Your task to perform on an android device: see tabs open on other devices in the chrome app Image 0: 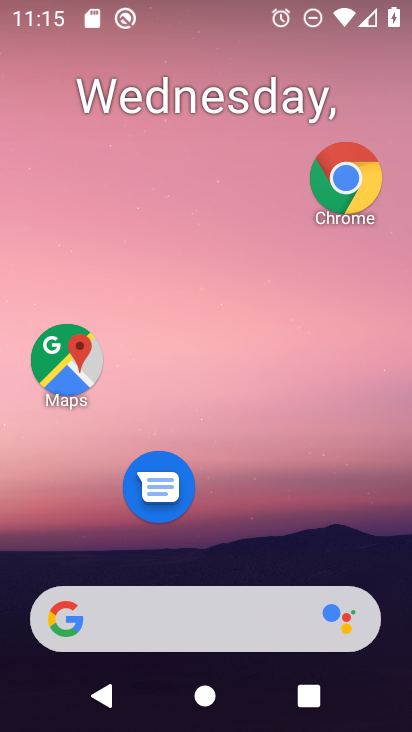
Step 0: drag from (232, 517) to (339, 27)
Your task to perform on an android device: see tabs open on other devices in the chrome app Image 1: 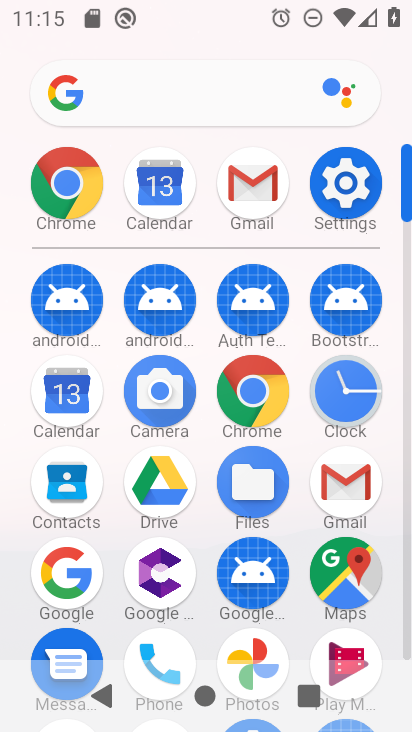
Step 1: click (71, 194)
Your task to perform on an android device: see tabs open on other devices in the chrome app Image 2: 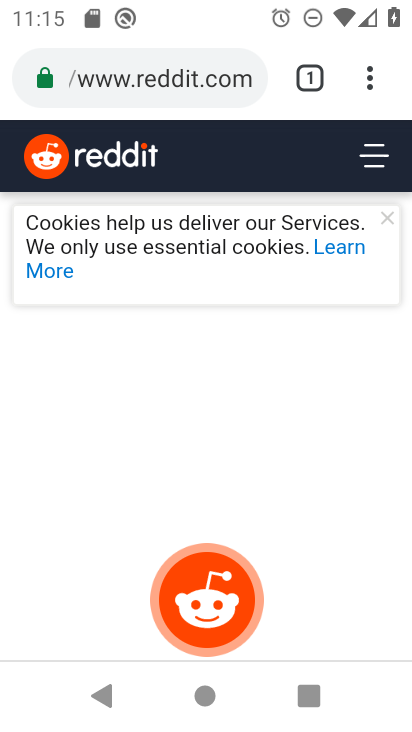
Step 2: task complete